Your task to perform on an android device: turn off location Image 0: 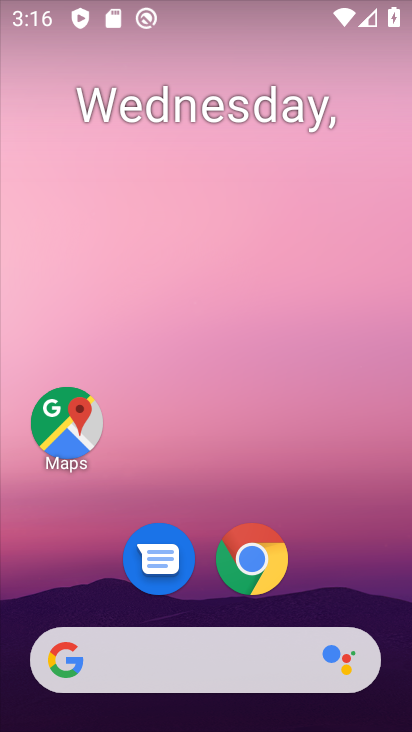
Step 0: drag from (72, 624) to (198, 217)
Your task to perform on an android device: turn off location Image 1: 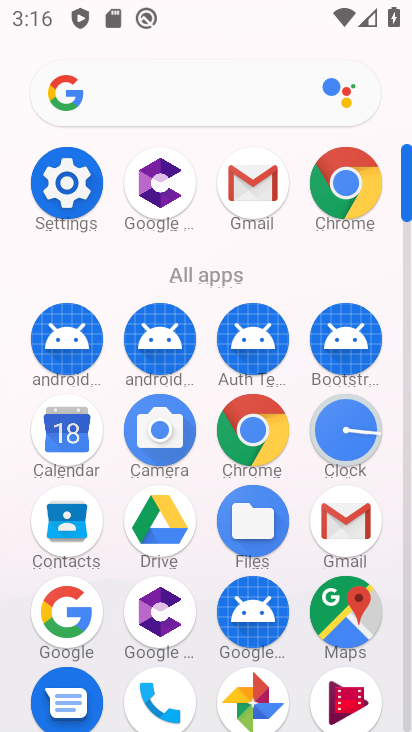
Step 1: drag from (106, 590) to (199, 363)
Your task to perform on an android device: turn off location Image 2: 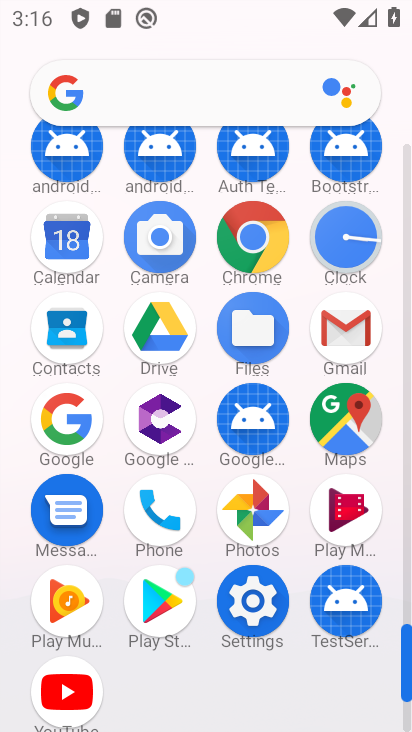
Step 2: click (254, 616)
Your task to perform on an android device: turn off location Image 3: 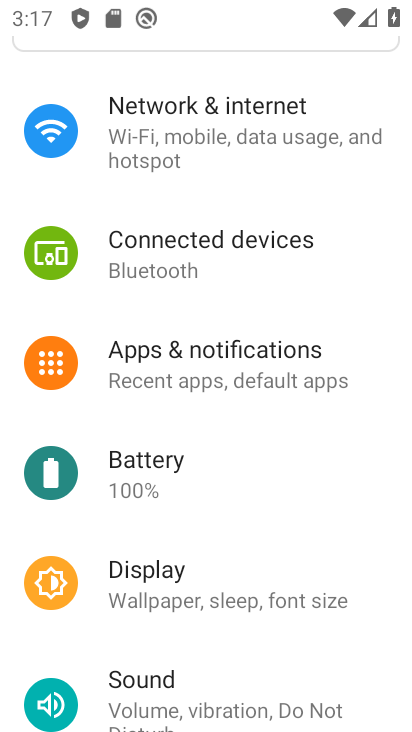
Step 3: drag from (181, 596) to (292, 226)
Your task to perform on an android device: turn off location Image 4: 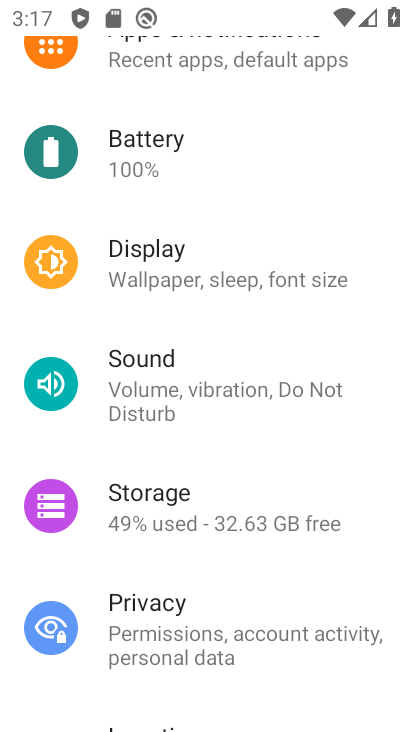
Step 4: drag from (172, 649) to (273, 194)
Your task to perform on an android device: turn off location Image 5: 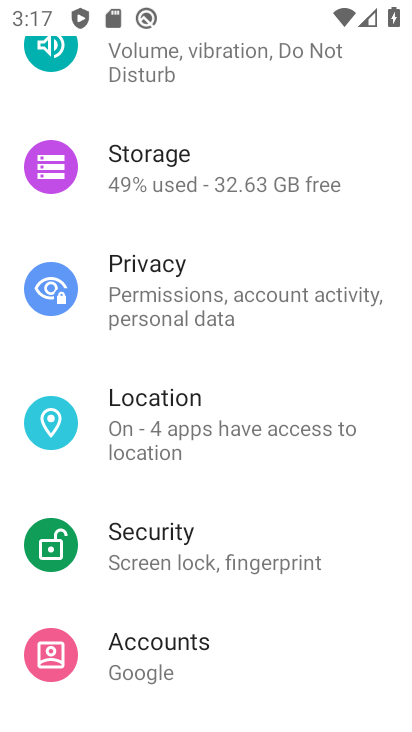
Step 5: click (179, 434)
Your task to perform on an android device: turn off location Image 6: 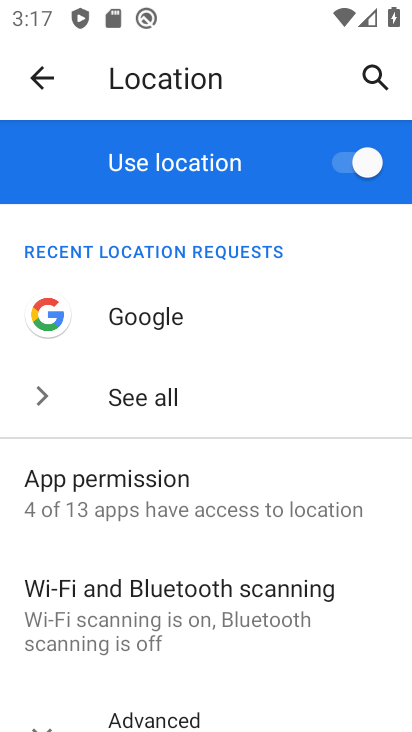
Step 6: click (342, 151)
Your task to perform on an android device: turn off location Image 7: 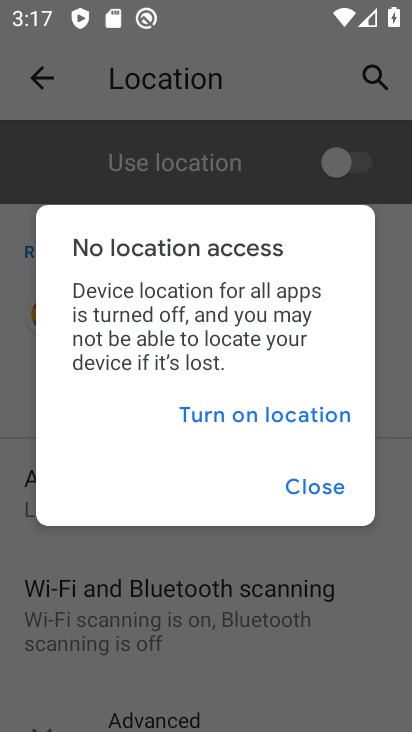
Step 7: click (327, 498)
Your task to perform on an android device: turn off location Image 8: 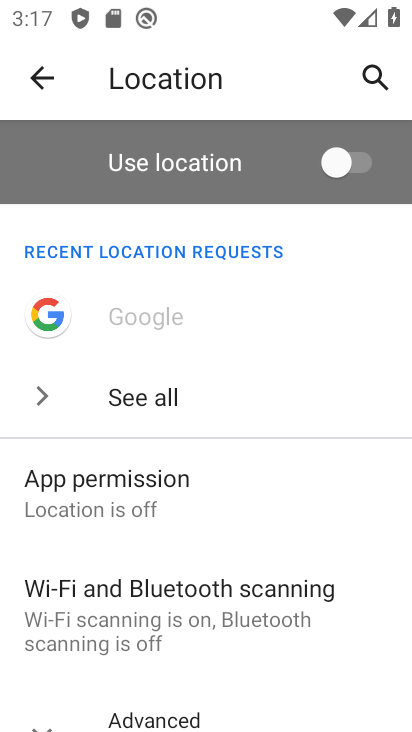
Step 8: task complete